Your task to perform on an android device: toggle show notifications on the lock screen Image 0: 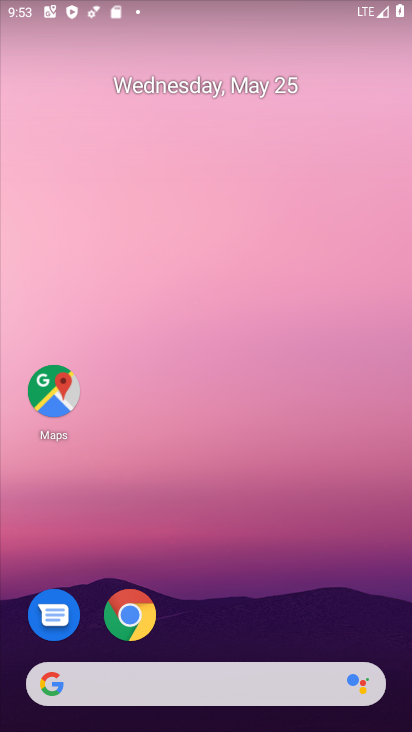
Step 0: drag from (248, 625) to (282, 16)
Your task to perform on an android device: toggle show notifications on the lock screen Image 1: 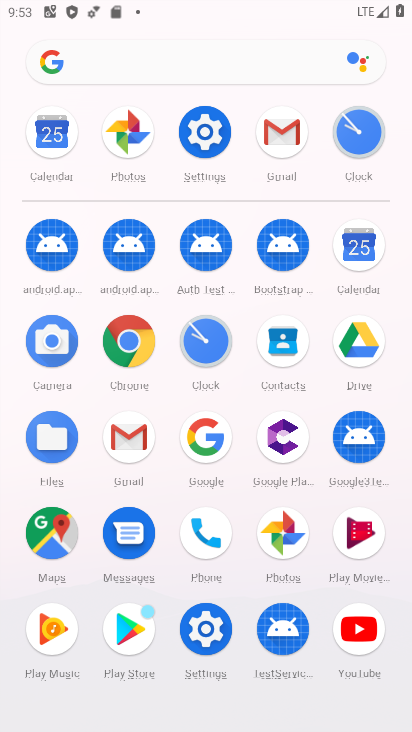
Step 1: click (215, 130)
Your task to perform on an android device: toggle show notifications on the lock screen Image 2: 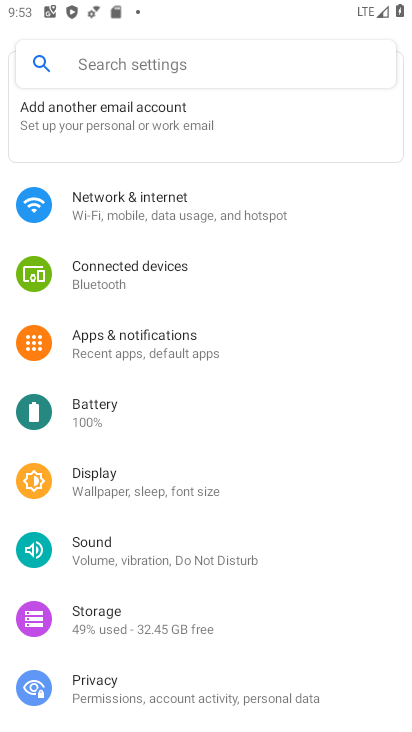
Step 2: click (212, 345)
Your task to perform on an android device: toggle show notifications on the lock screen Image 3: 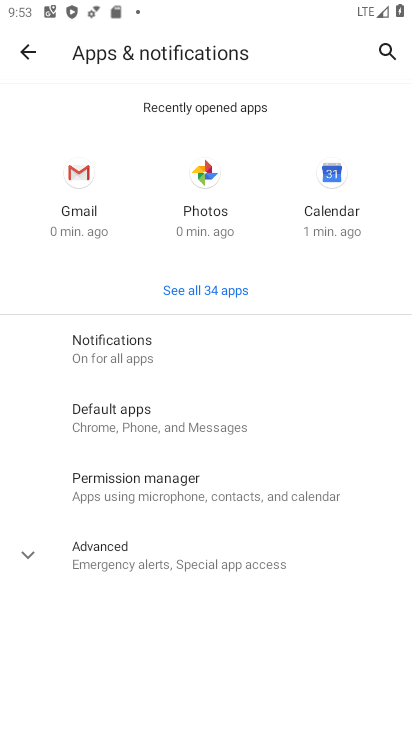
Step 3: click (206, 354)
Your task to perform on an android device: toggle show notifications on the lock screen Image 4: 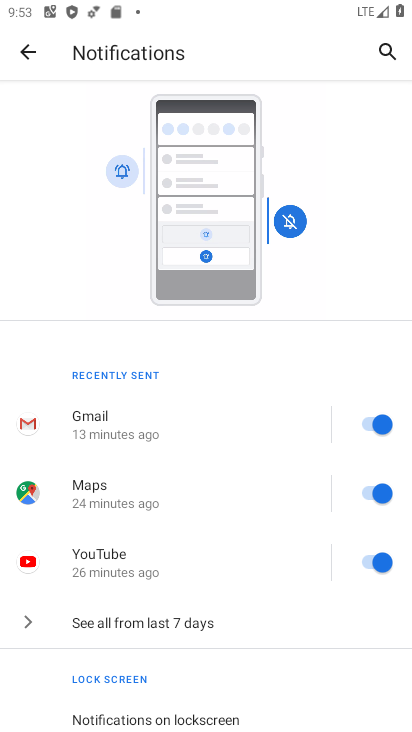
Step 4: drag from (208, 542) to (244, 240)
Your task to perform on an android device: toggle show notifications on the lock screen Image 5: 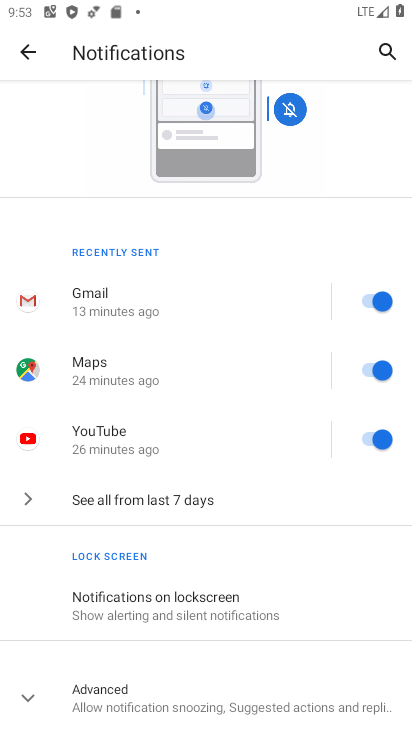
Step 5: click (197, 604)
Your task to perform on an android device: toggle show notifications on the lock screen Image 6: 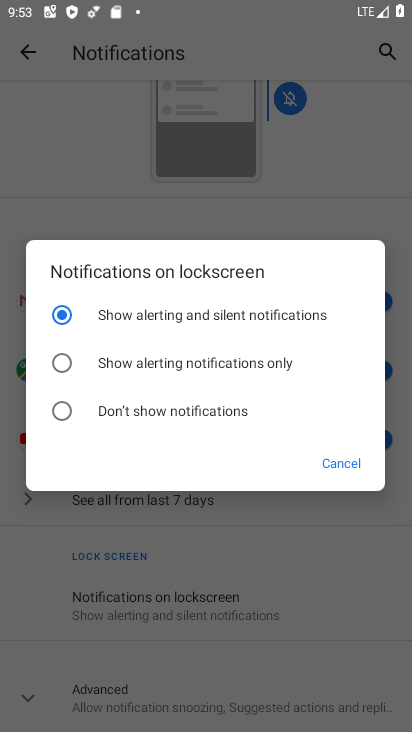
Step 6: click (338, 462)
Your task to perform on an android device: toggle show notifications on the lock screen Image 7: 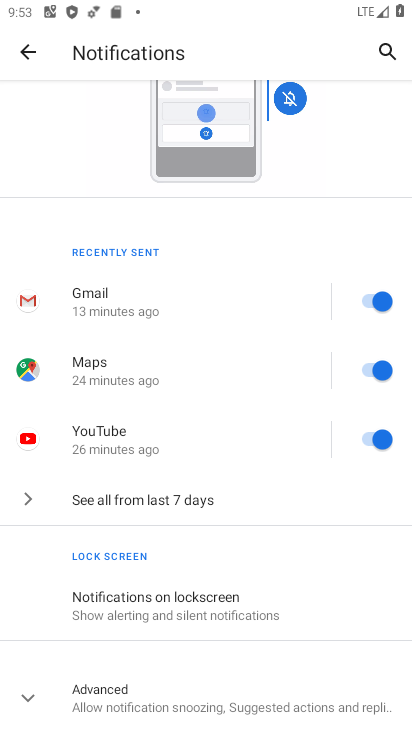
Step 7: task complete